Your task to perform on an android device: remove spam from my inbox in the gmail app Image 0: 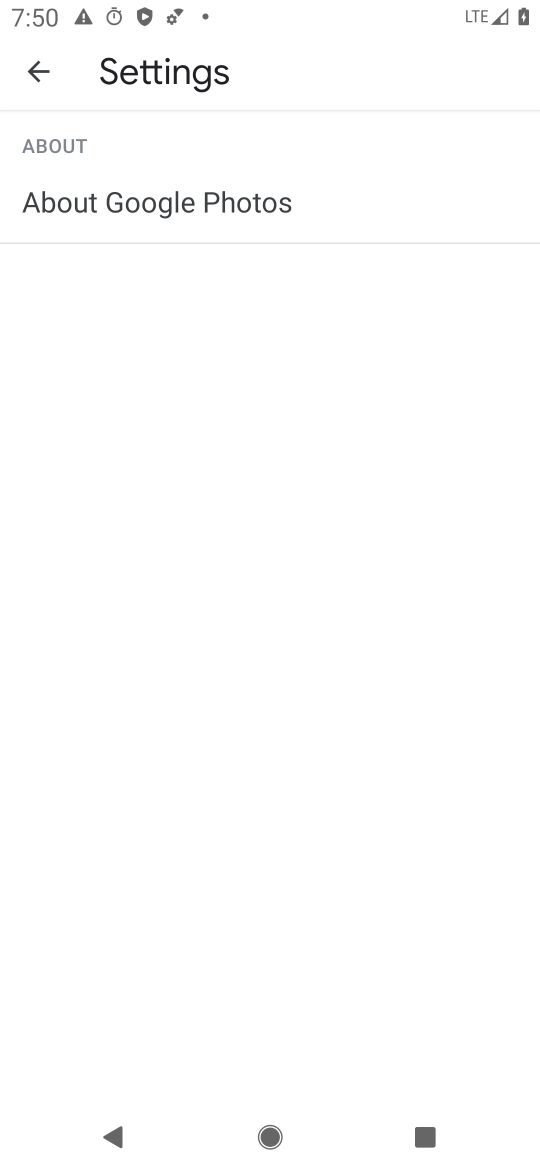
Step 0: click (353, 703)
Your task to perform on an android device: remove spam from my inbox in the gmail app Image 1: 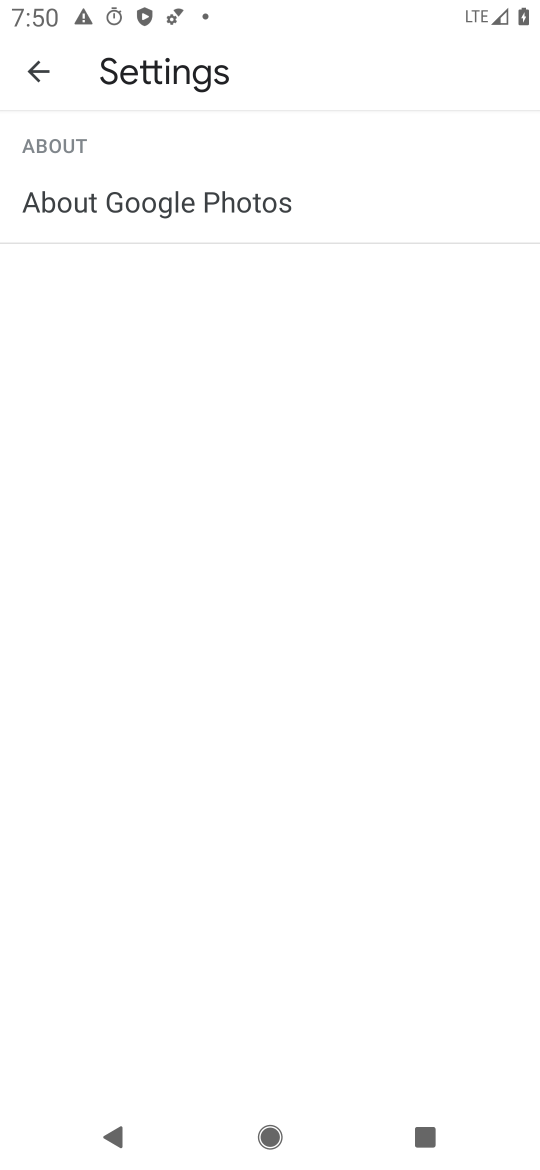
Step 1: press home button
Your task to perform on an android device: remove spam from my inbox in the gmail app Image 2: 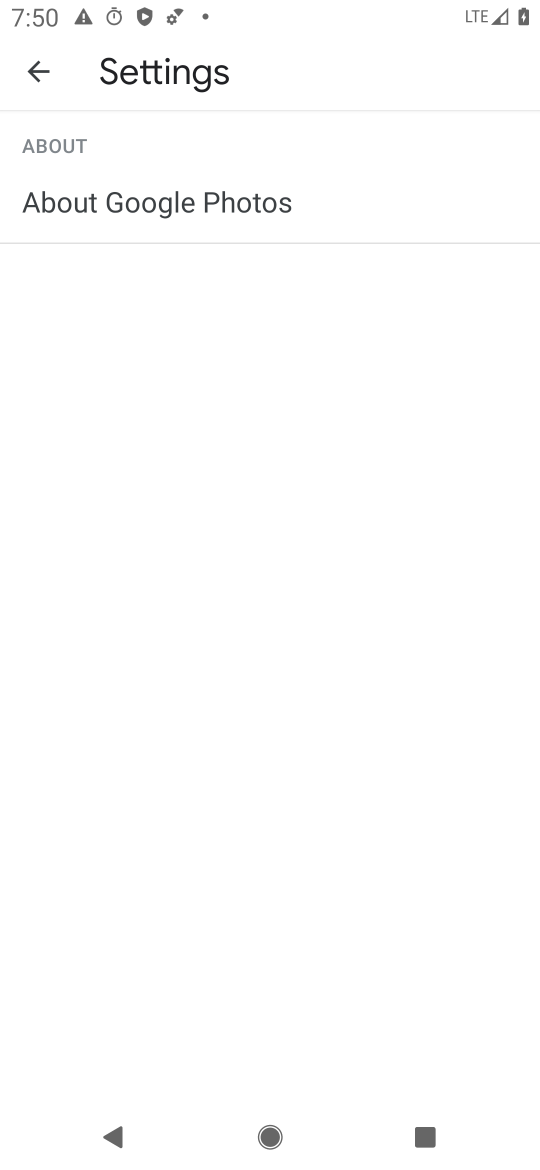
Step 2: drag from (141, 845) to (233, 144)
Your task to perform on an android device: remove spam from my inbox in the gmail app Image 3: 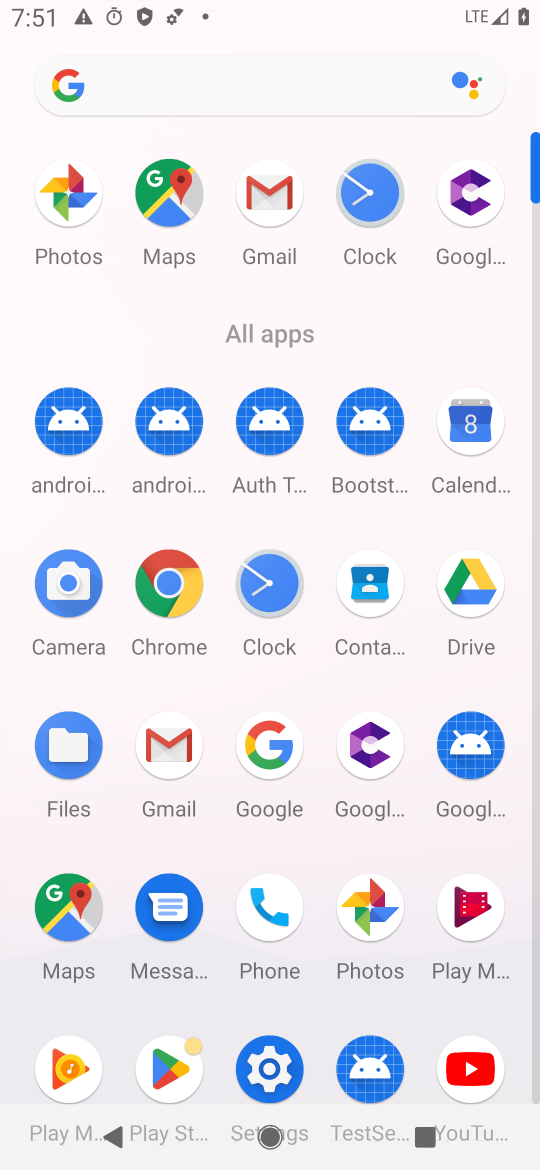
Step 3: click (204, 728)
Your task to perform on an android device: remove spam from my inbox in the gmail app Image 4: 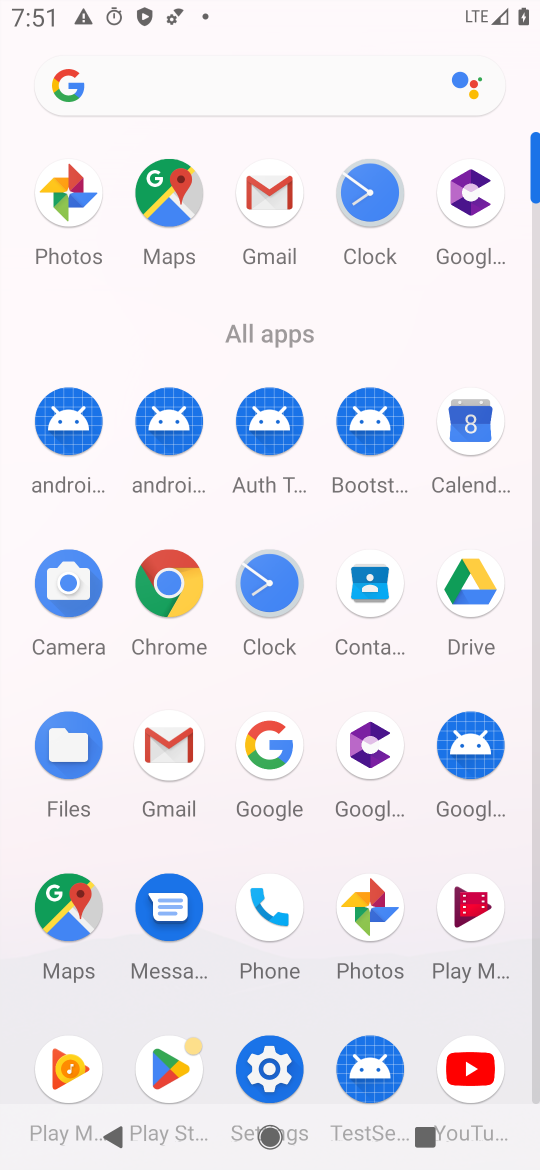
Step 4: click (179, 721)
Your task to perform on an android device: remove spam from my inbox in the gmail app Image 5: 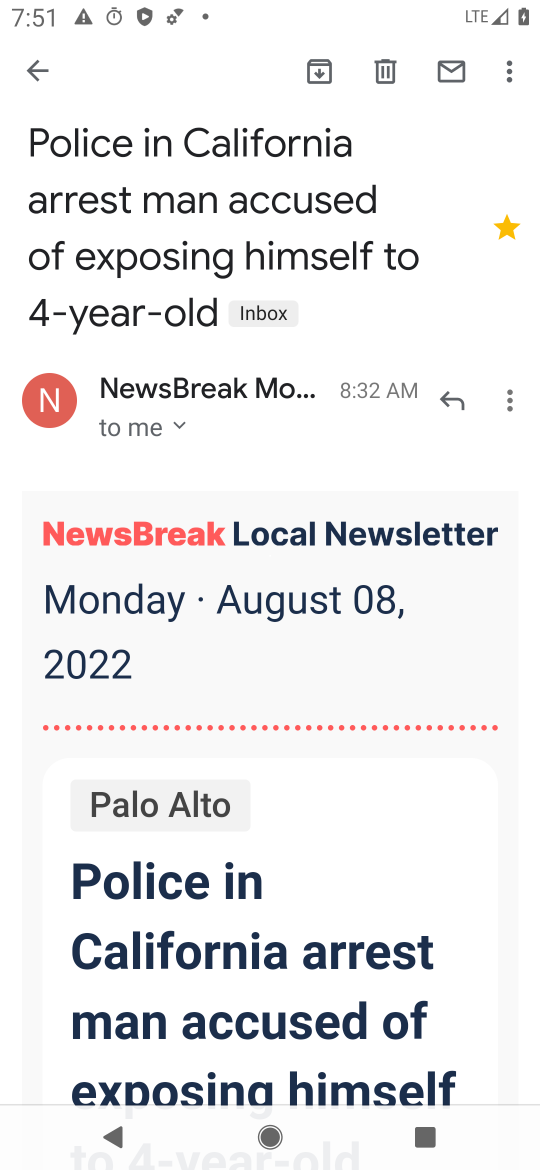
Step 5: drag from (186, 888) to (361, 294)
Your task to perform on an android device: remove spam from my inbox in the gmail app Image 6: 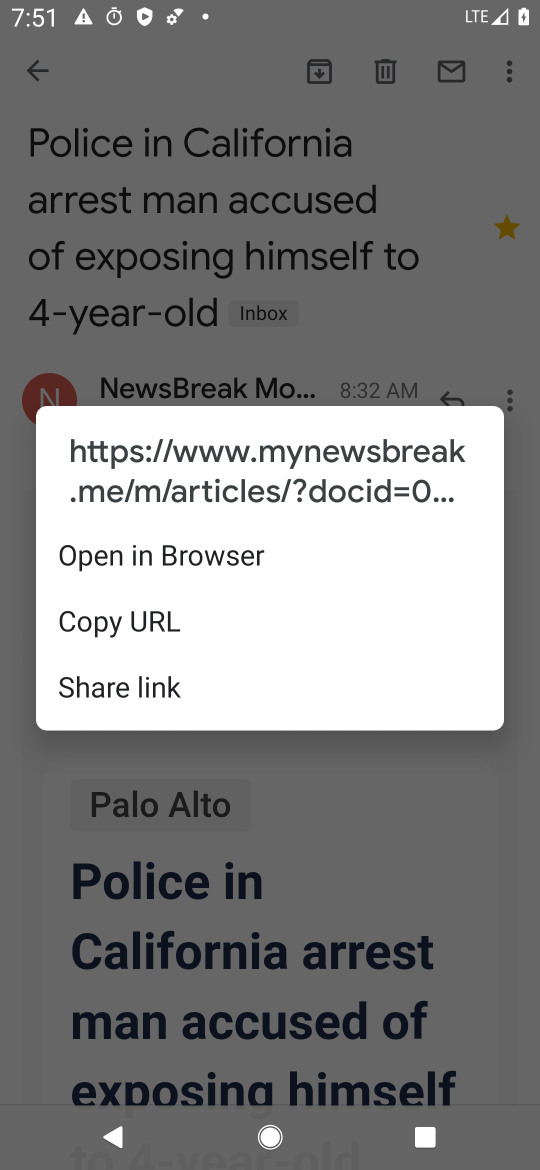
Step 6: click (44, 95)
Your task to perform on an android device: remove spam from my inbox in the gmail app Image 7: 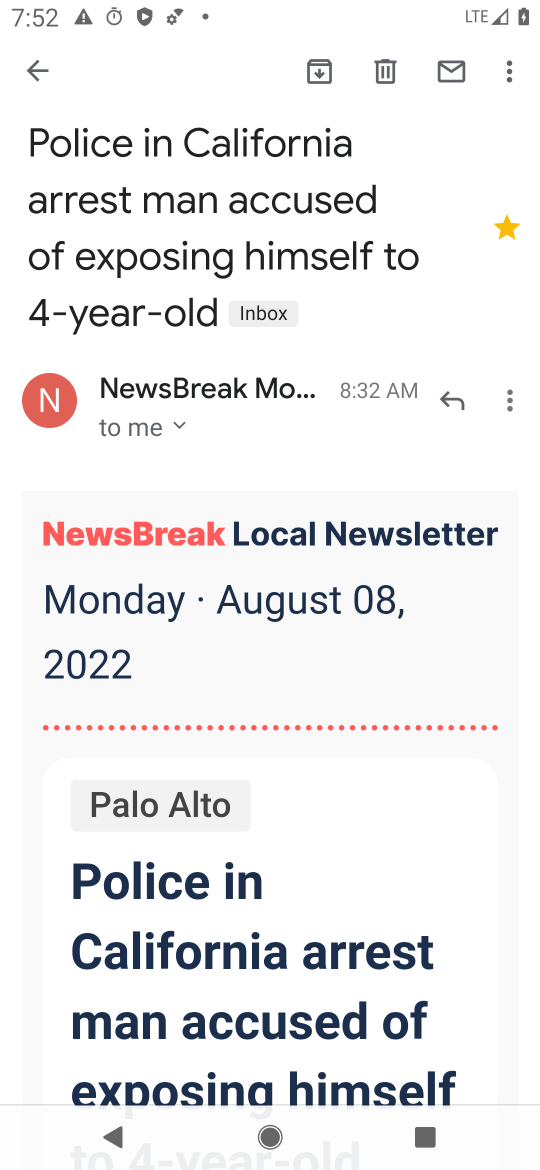
Step 7: click (19, 53)
Your task to perform on an android device: remove spam from my inbox in the gmail app Image 8: 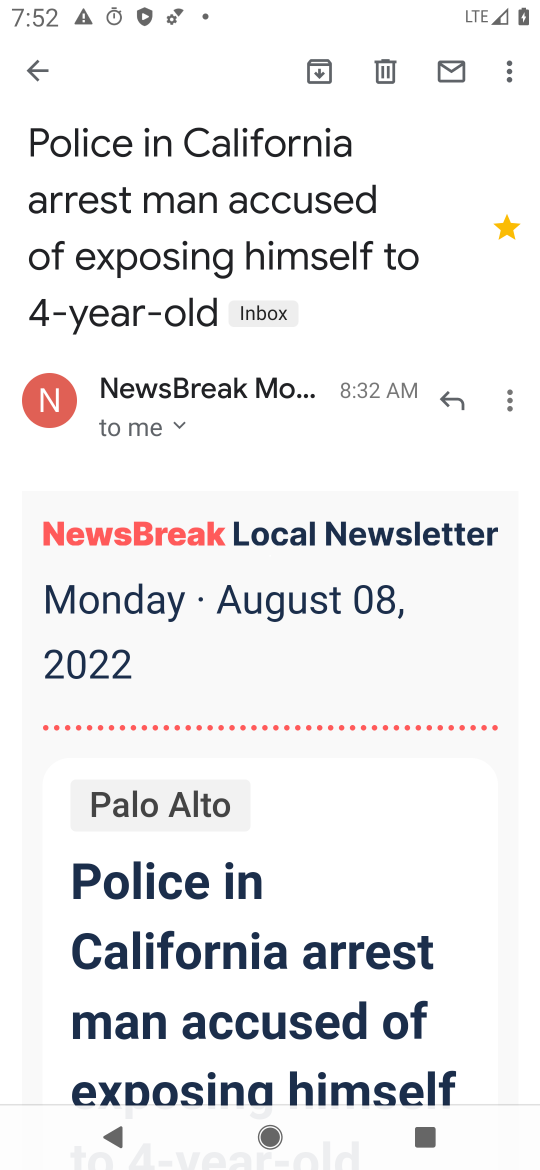
Step 8: click (17, 59)
Your task to perform on an android device: remove spam from my inbox in the gmail app Image 9: 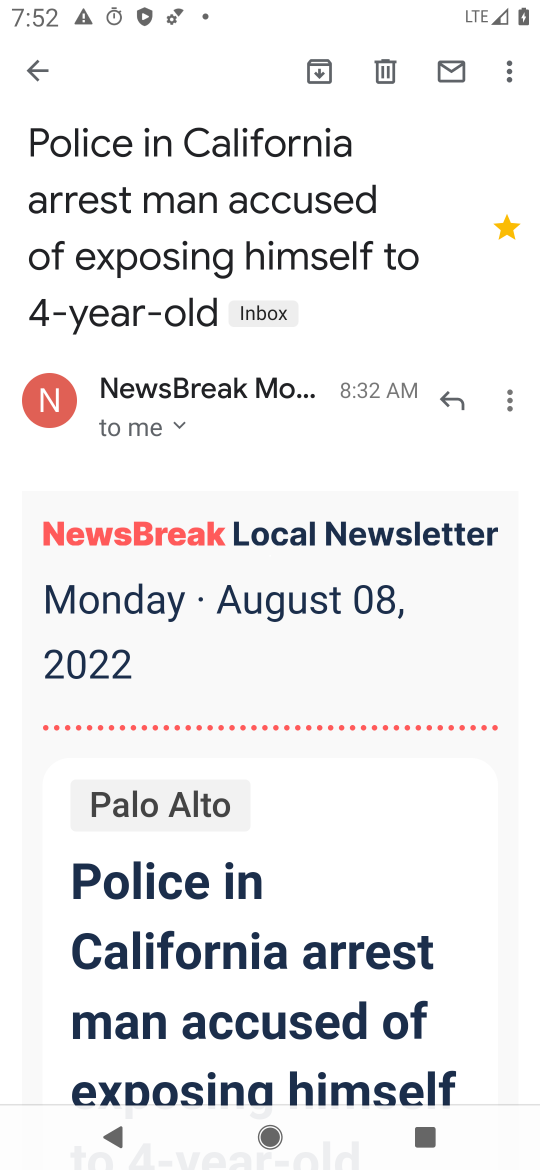
Step 9: drag from (358, 894) to (282, 125)
Your task to perform on an android device: remove spam from my inbox in the gmail app Image 10: 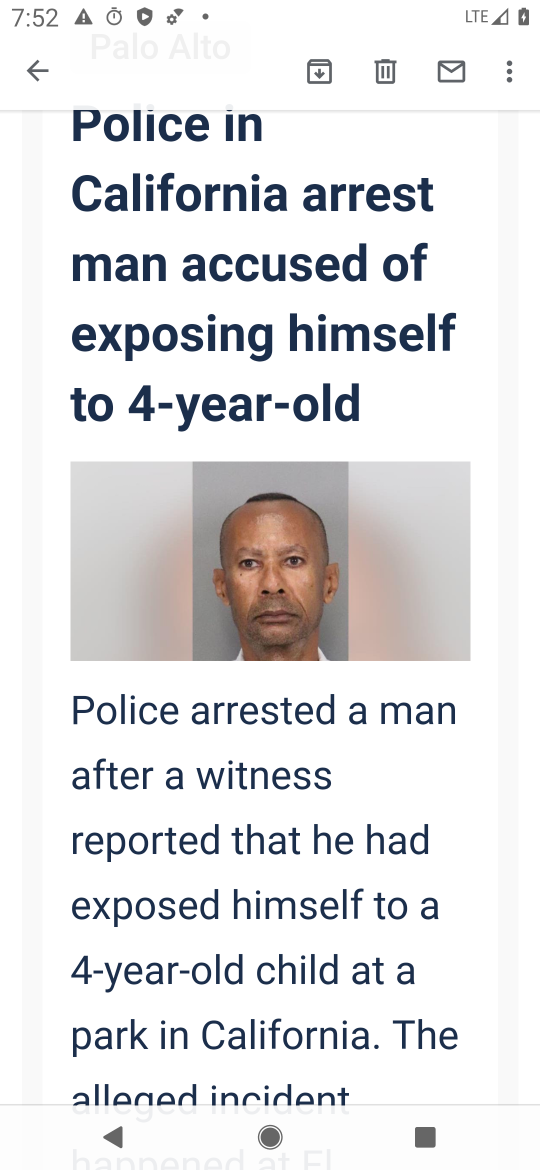
Step 10: click (25, 66)
Your task to perform on an android device: remove spam from my inbox in the gmail app Image 11: 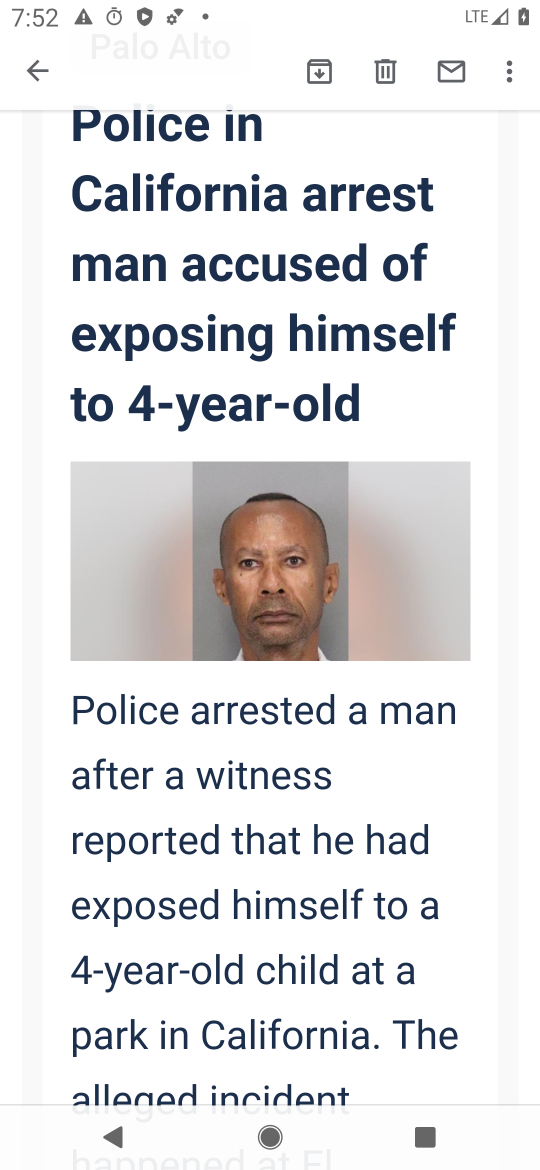
Step 11: press back button
Your task to perform on an android device: remove spam from my inbox in the gmail app Image 12: 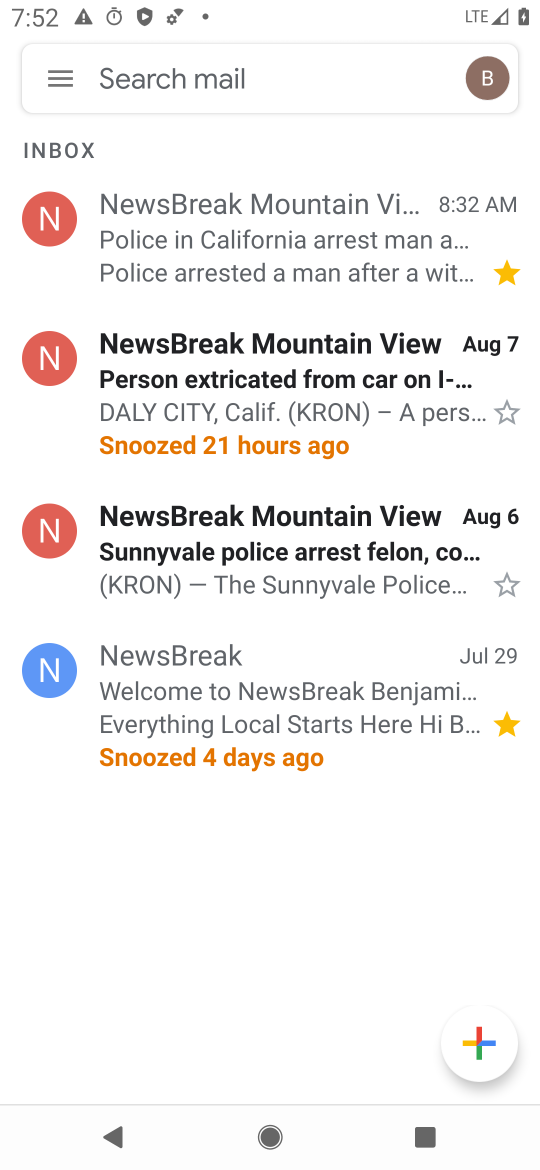
Step 12: click (54, 71)
Your task to perform on an android device: remove spam from my inbox in the gmail app Image 13: 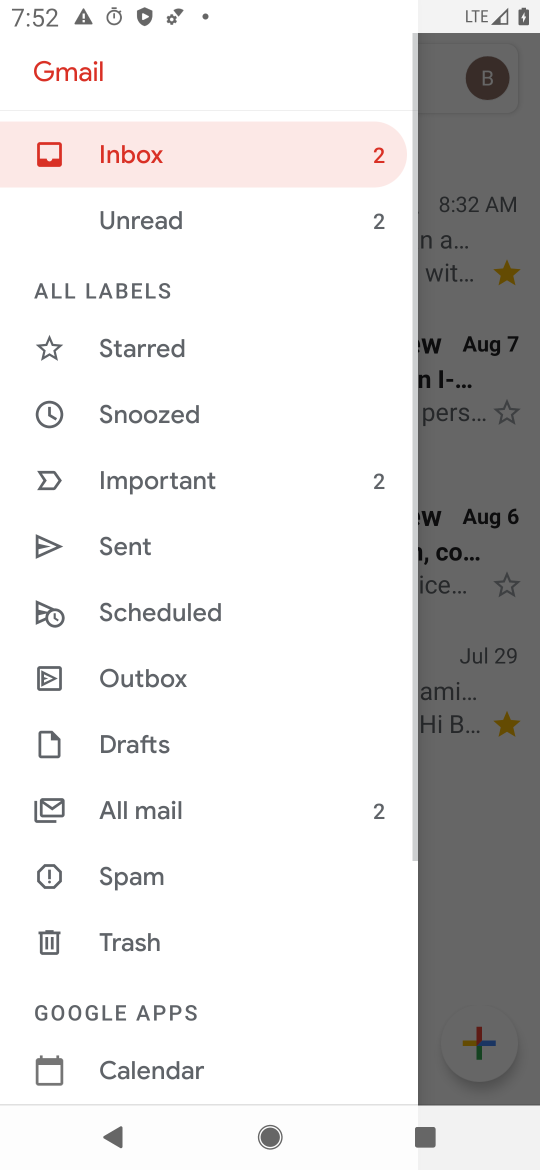
Step 13: click (114, 304)
Your task to perform on an android device: remove spam from my inbox in the gmail app Image 14: 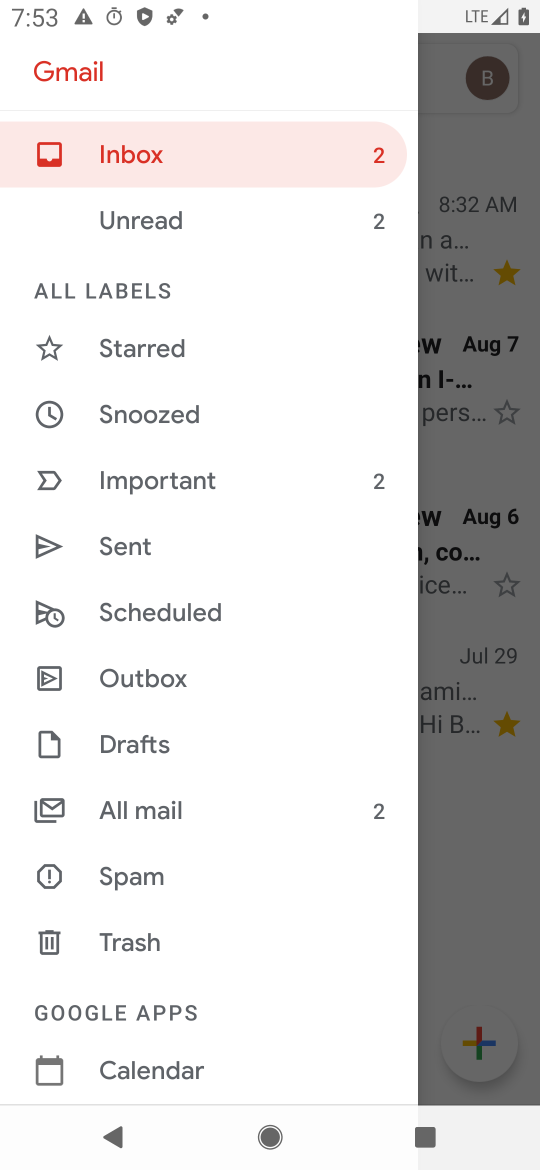
Step 14: click (117, 878)
Your task to perform on an android device: remove spam from my inbox in the gmail app Image 15: 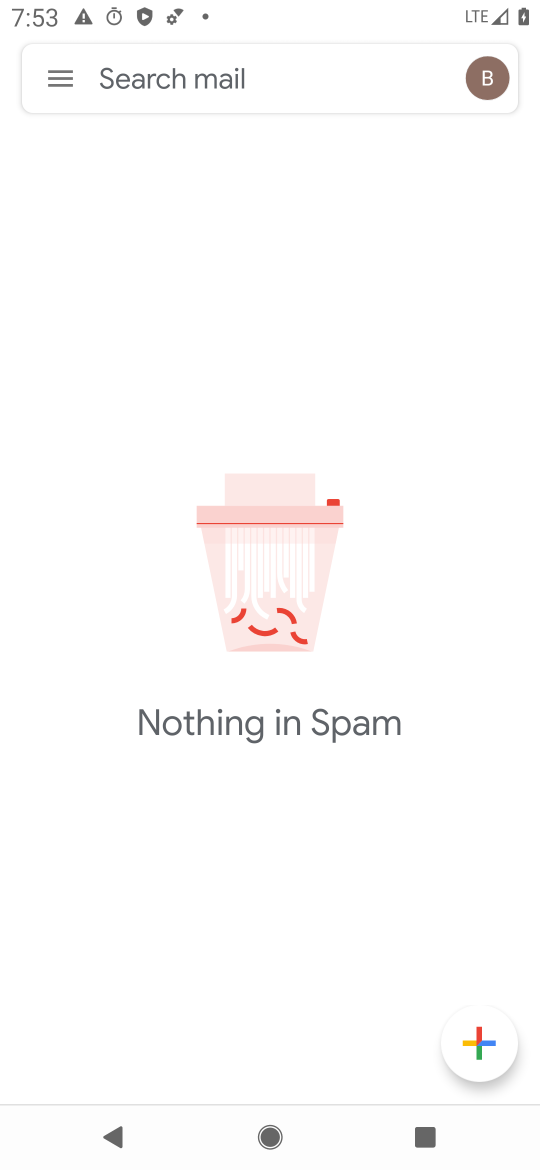
Step 15: task complete